Your task to perform on an android device: Check the weather Image 0: 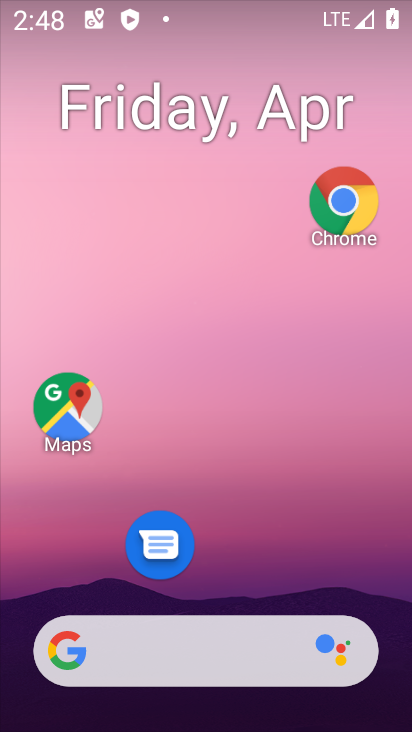
Step 0: drag from (245, 543) to (328, 81)
Your task to perform on an android device: Check the weather Image 1: 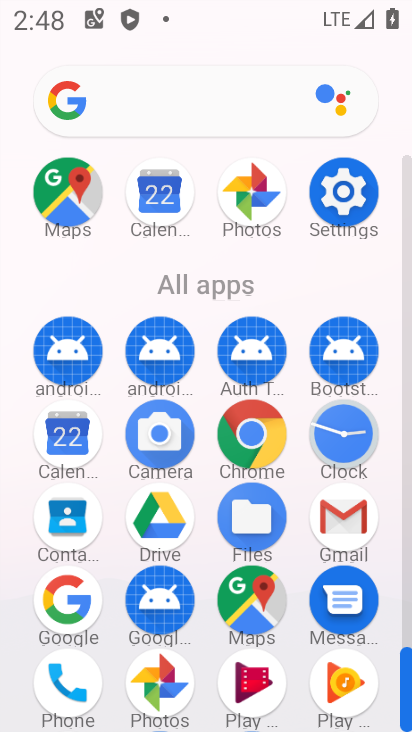
Step 1: click (201, 112)
Your task to perform on an android device: Check the weather Image 2: 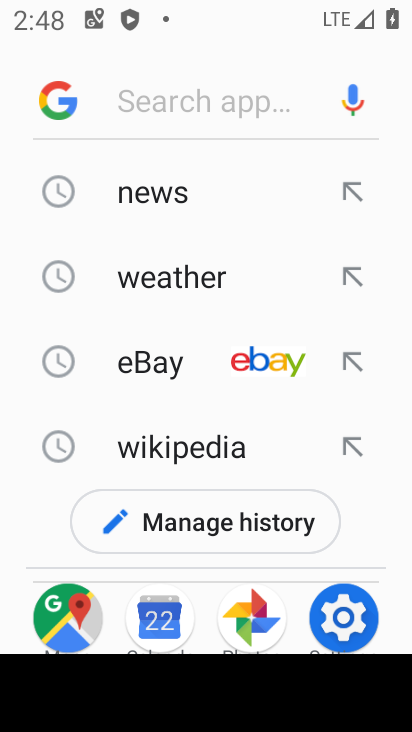
Step 2: click (176, 275)
Your task to perform on an android device: Check the weather Image 3: 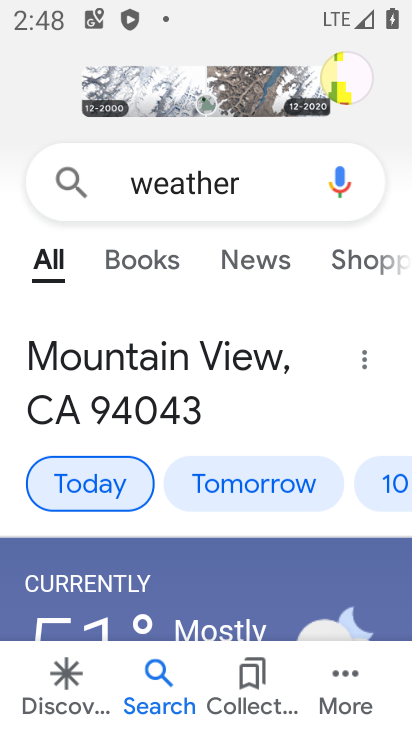
Step 3: task complete